Your task to perform on an android device: Show me popular games on the Play Store Image 0: 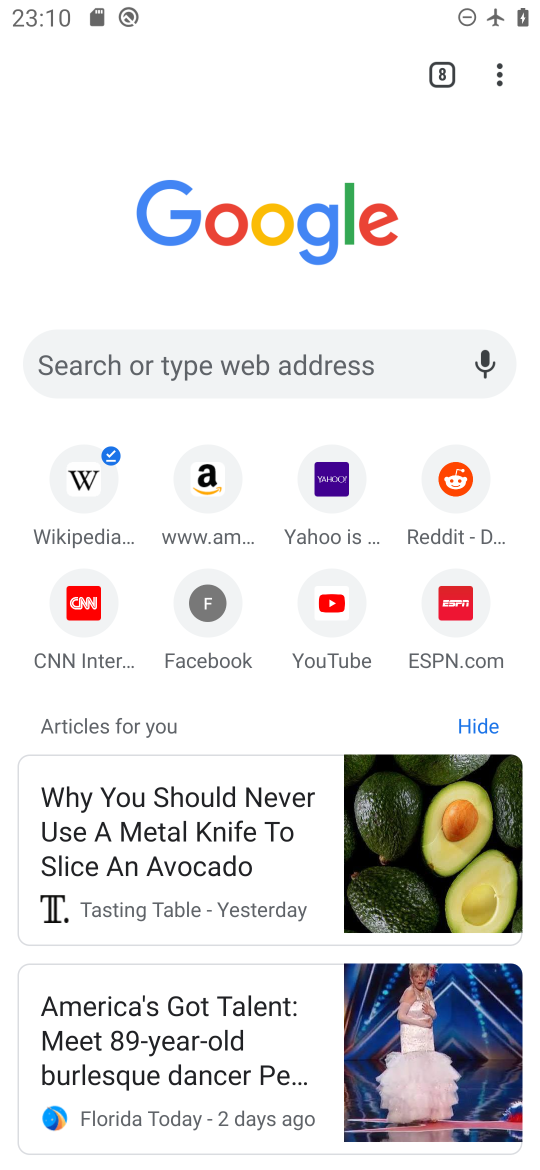
Step 0: press home button
Your task to perform on an android device: Show me popular games on the Play Store Image 1: 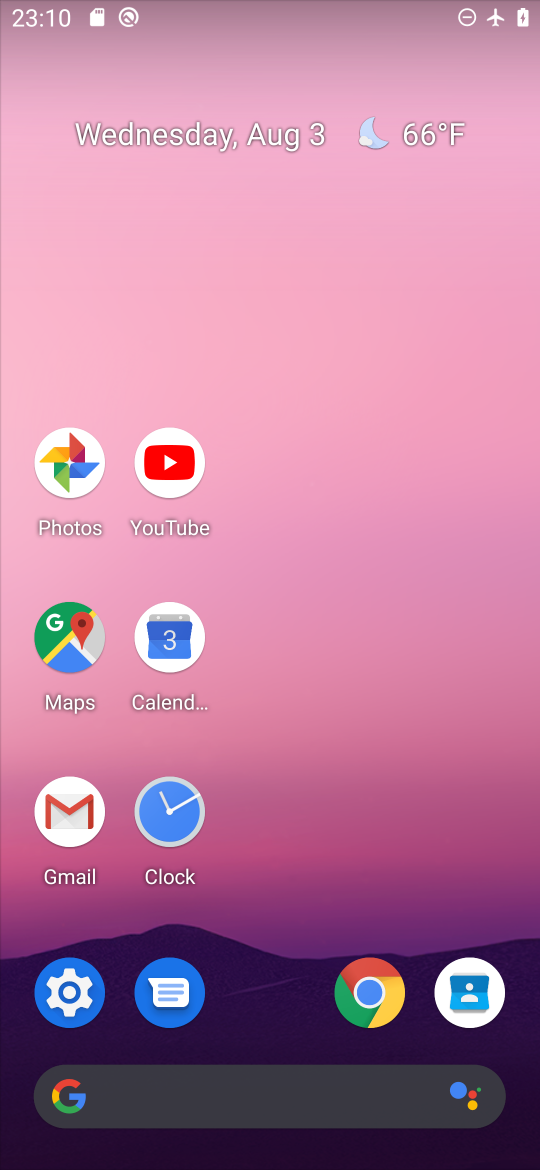
Step 1: drag from (257, 974) to (266, 184)
Your task to perform on an android device: Show me popular games on the Play Store Image 2: 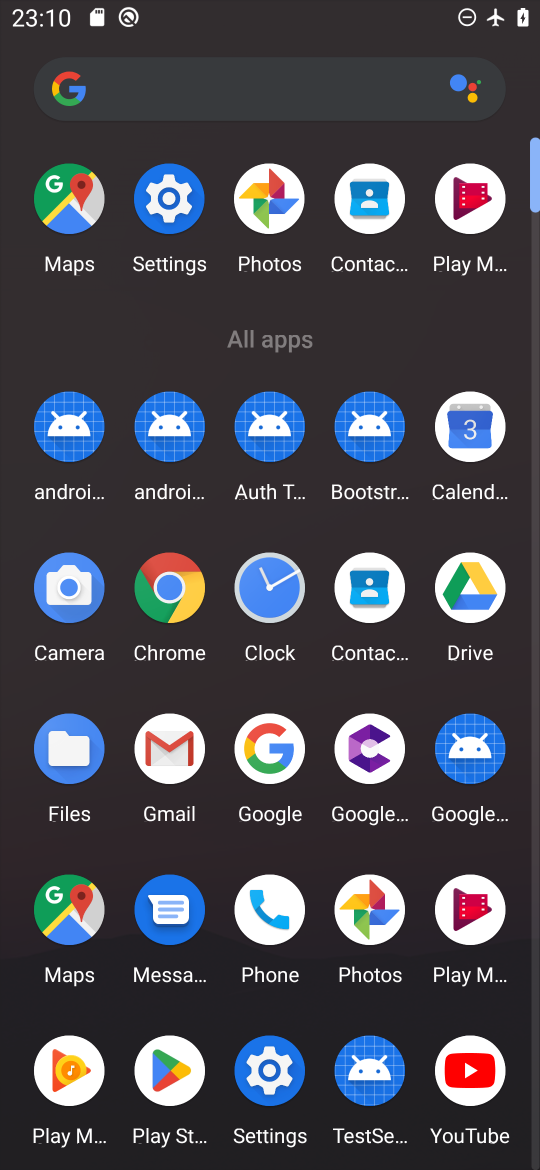
Step 2: click (173, 1085)
Your task to perform on an android device: Show me popular games on the Play Store Image 3: 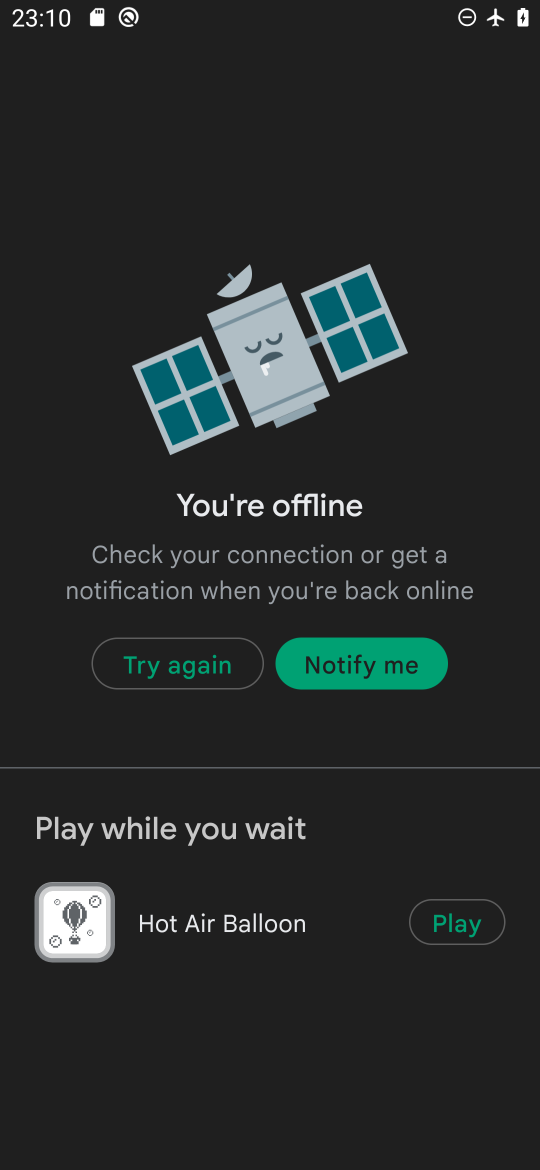
Step 3: click (158, 651)
Your task to perform on an android device: Show me popular games on the Play Store Image 4: 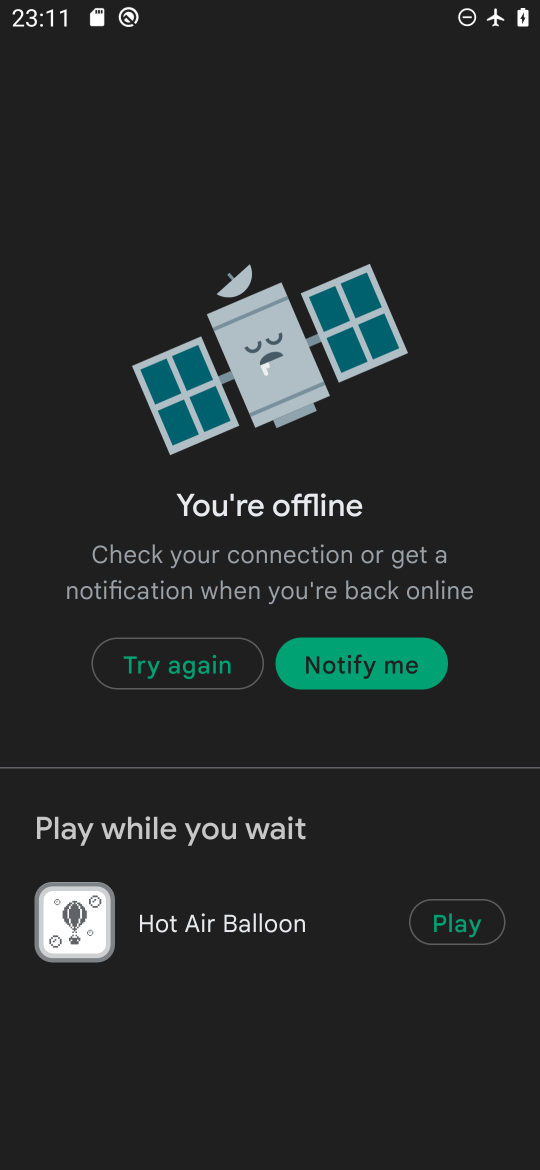
Step 4: click (187, 659)
Your task to perform on an android device: Show me popular games on the Play Store Image 5: 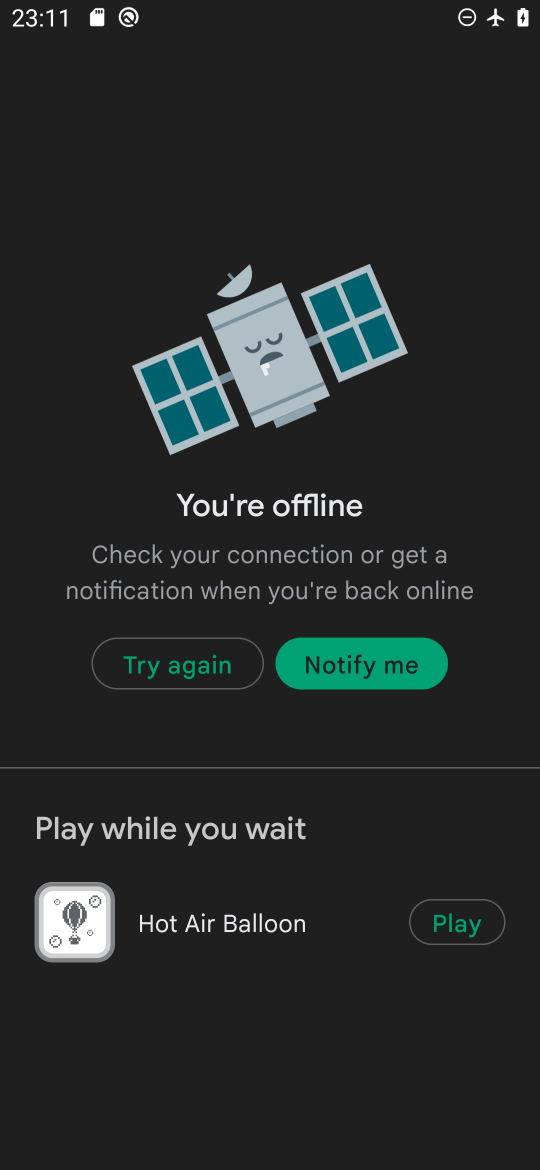
Step 5: task complete